Your task to perform on an android device: Open the phone app and click the voicemail tab. Image 0: 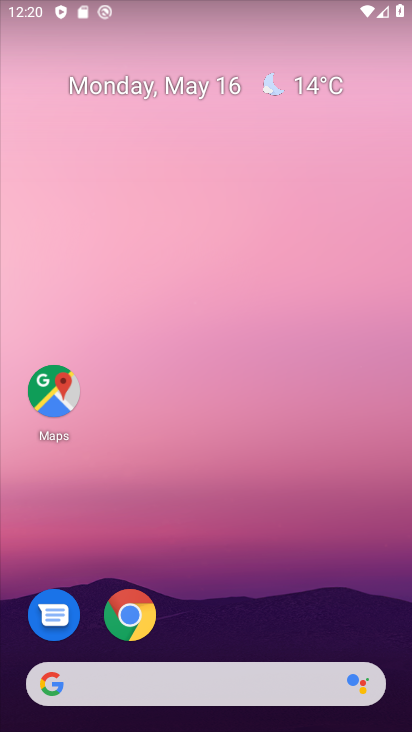
Step 0: drag from (302, 617) to (301, 207)
Your task to perform on an android device: Open the phone app and click the voicemail tab. Image 1: 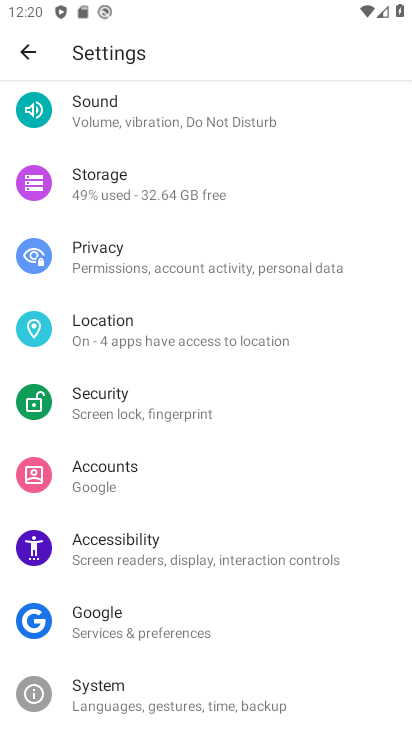
Step 1: press home button
Your task to perform on an android device: Open the phone app and click the voicemail tab. Image 2: 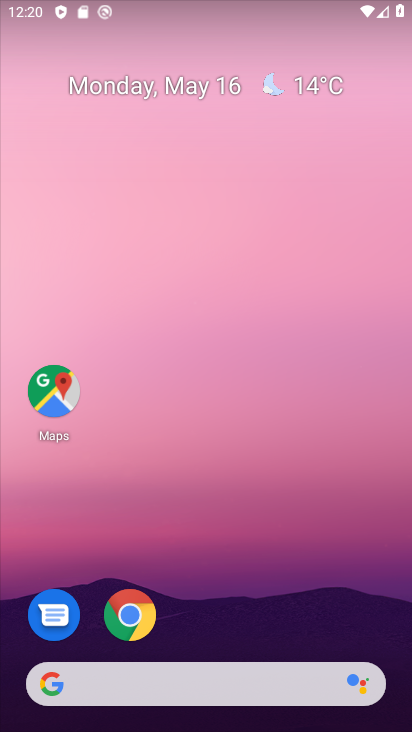
Step 2: drag from (237, 611) to (271, 196)
Your task to perform on an android device: Open the phone app and click the voicemail tab. Image 3: 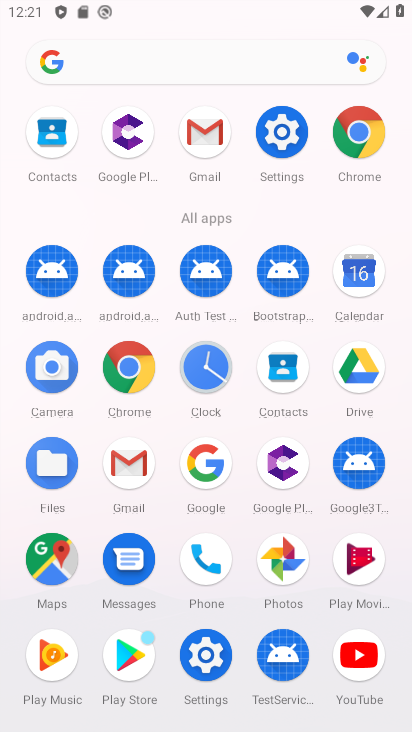
Step 3: click (198, 547)
Your task to perform on an android device: Open the phone app and click the voicemail tab. Image 4: 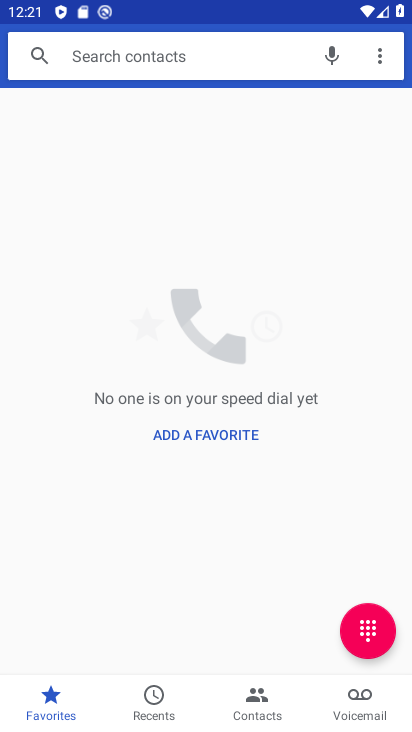
Step 4: click (355, 696)
Your task to perform on an android device: Open the phone app and click the voicemail tab. Image 5: 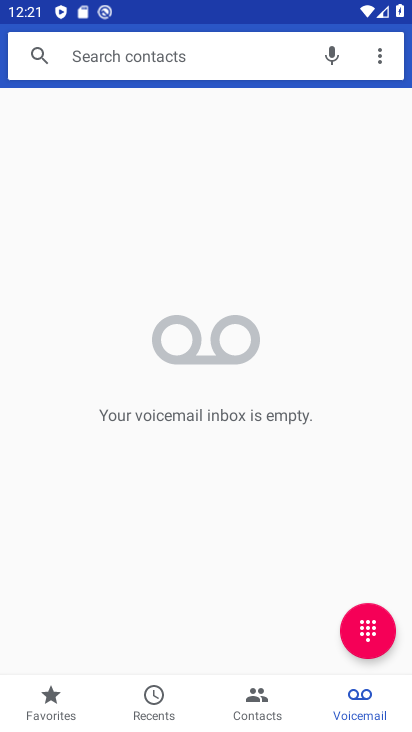
Step 5: task complete